Your task to perform on an android device: open chrome privacy settings Image 0: 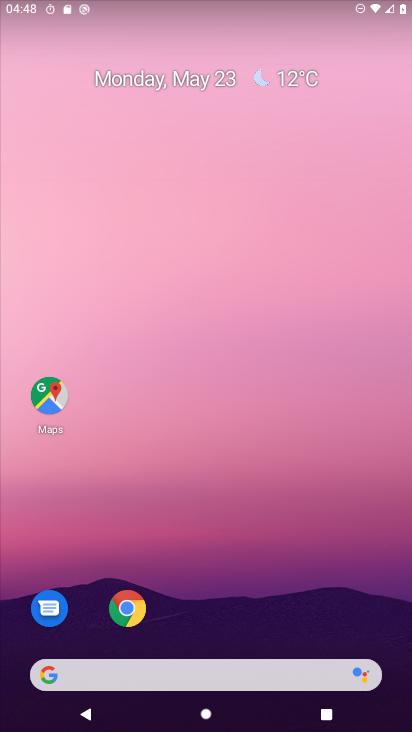
Step 0: drag from (324, 599) to (217, 12)
Your task to perform on an android device: open chrome privacy settings Image 1: 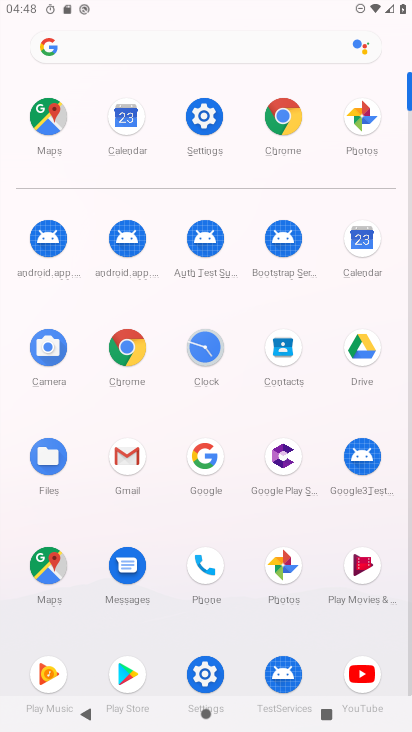
Step 1: click (282, 119)
Your task to perform on an android device: open chrome privacy settings Image 2: 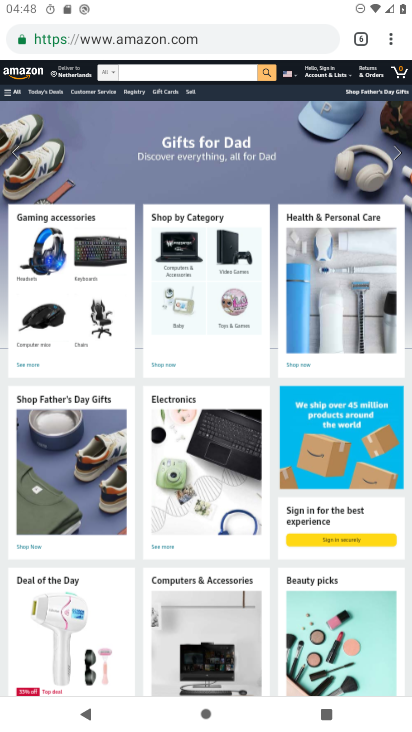
Step 2: click (390, 30)
Your task to perform on an android device: open chrome privacy settings Image 3: 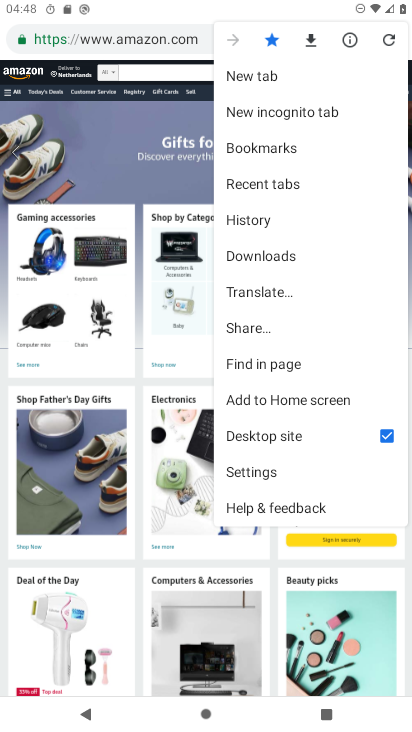
Step 3: click (267, 453)
Your task to perform on an android device: open chrome privacy settings Image 4: 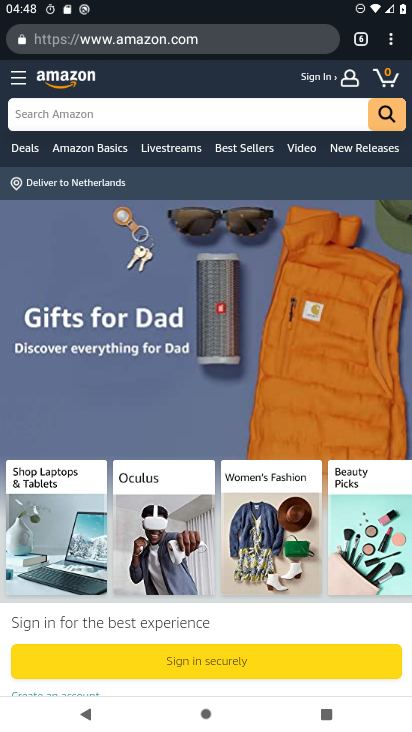
Step 4: click (395, 41)
Your task to perform on an android device: open chrome privacy settings Image 5: 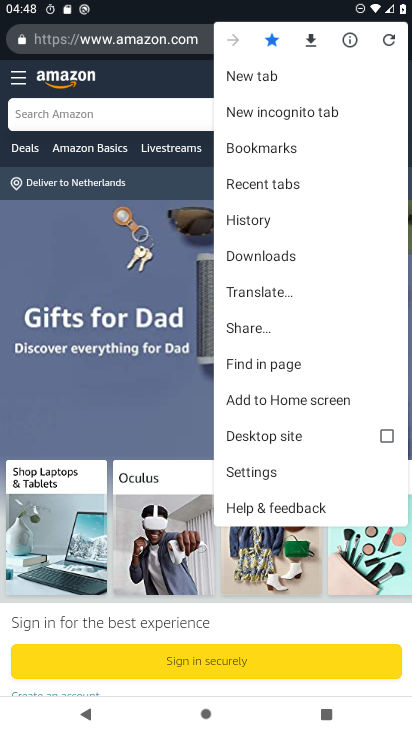
Step 5: click (265, 466)
Your task to perform on an android device: open chrome privacy settings Image 6: 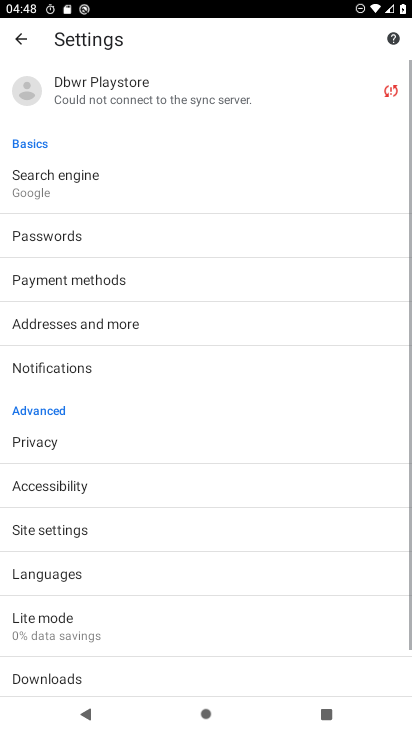
Step 6: click (80, 445)
Your task to perform on an android device: open chrome privacy settings Image 7: 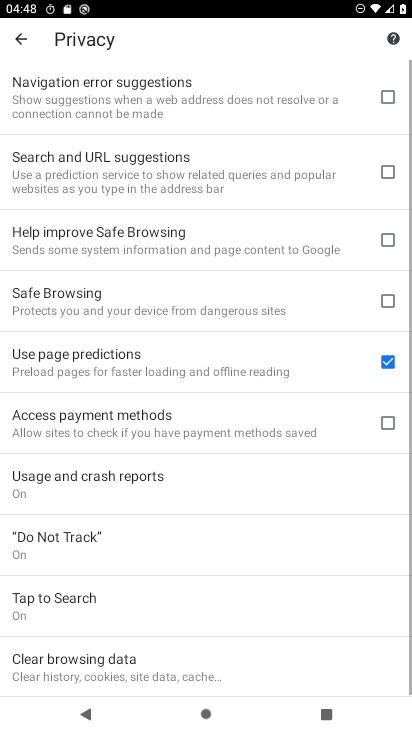
Step 7: task complete